Your task to perform on an android device: How much does a 2 bedroom apartment rent for in Seattle? Image 0: 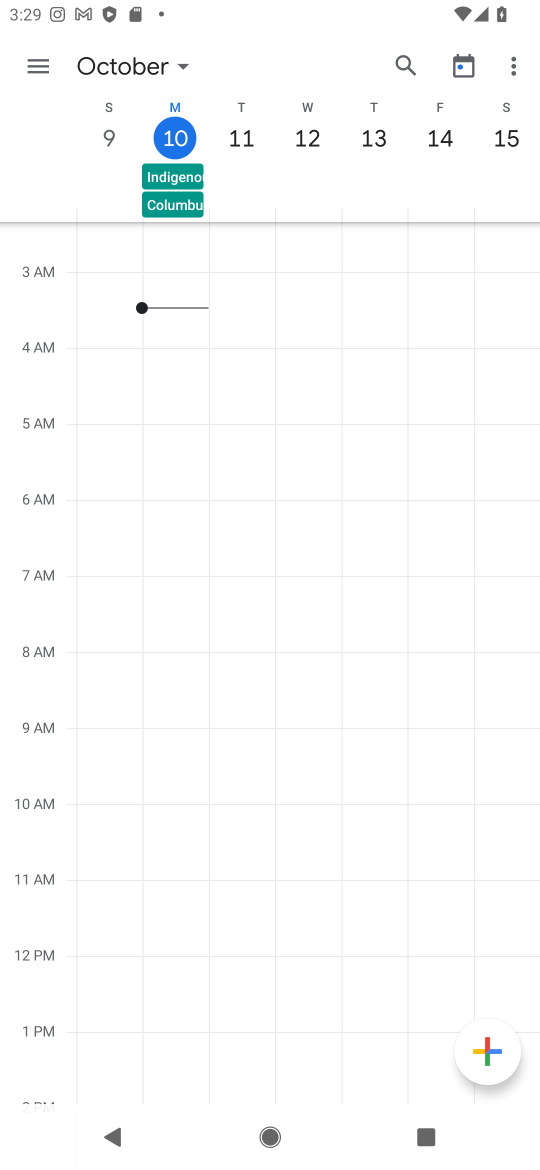
Step 0: press home button
Your task to perform on an android device: How much does a 2 bedroom apartment rent for in Seattle? Image 1: 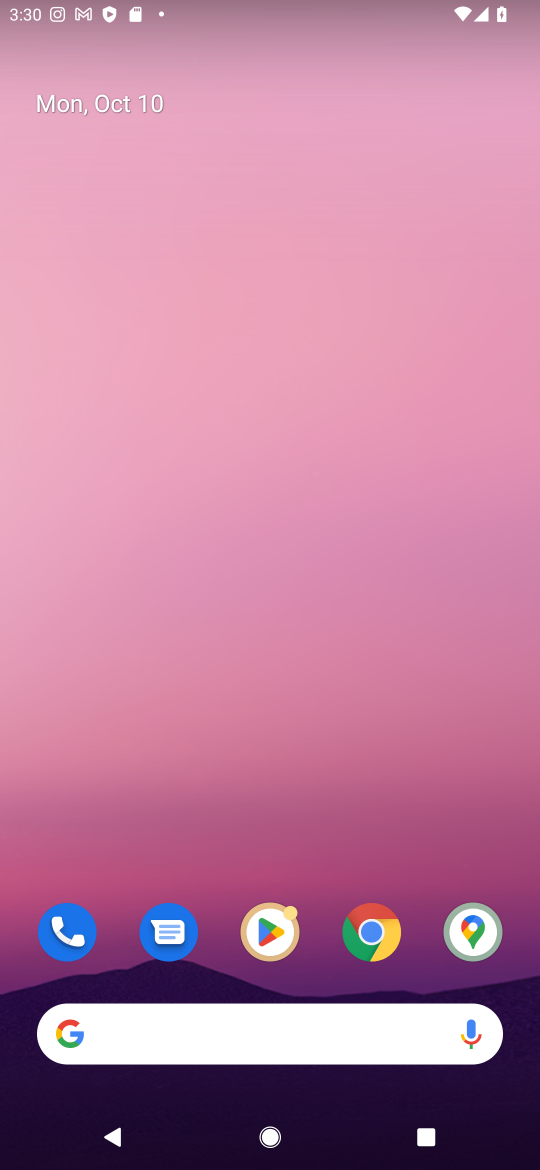
Step 1: click (295, 1034)
Your task to perform on an android device: How much does a 2 bedroom apartment rent for in Seattle? Image 2: 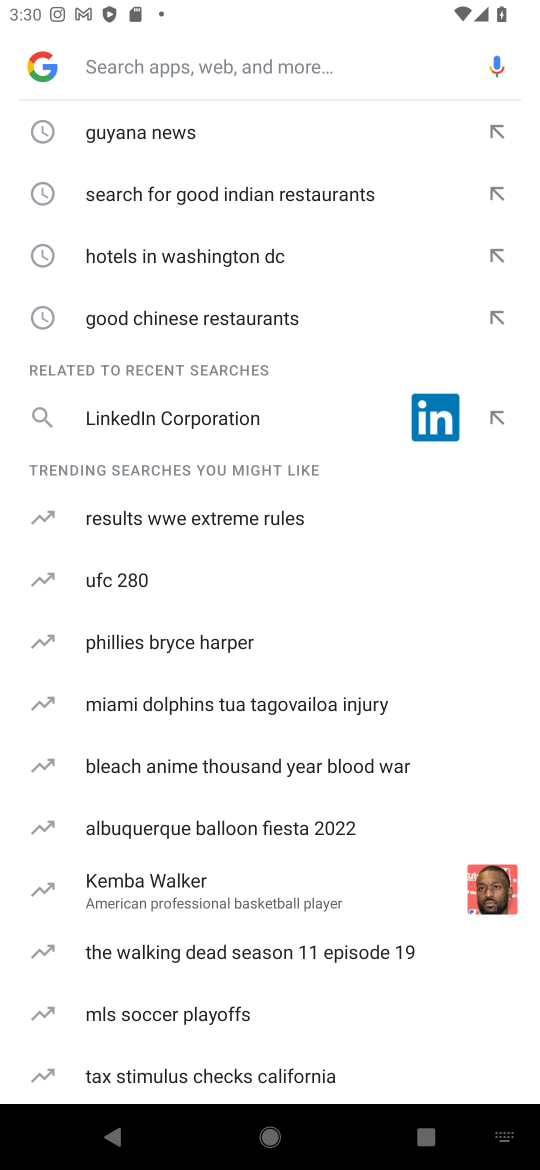
Step 2: type "2 bedroom apartment rent for in Seattle"
Your task to perform on an android device: How much does a 2 bedroom apartment rent for in Seattle? Image 3: 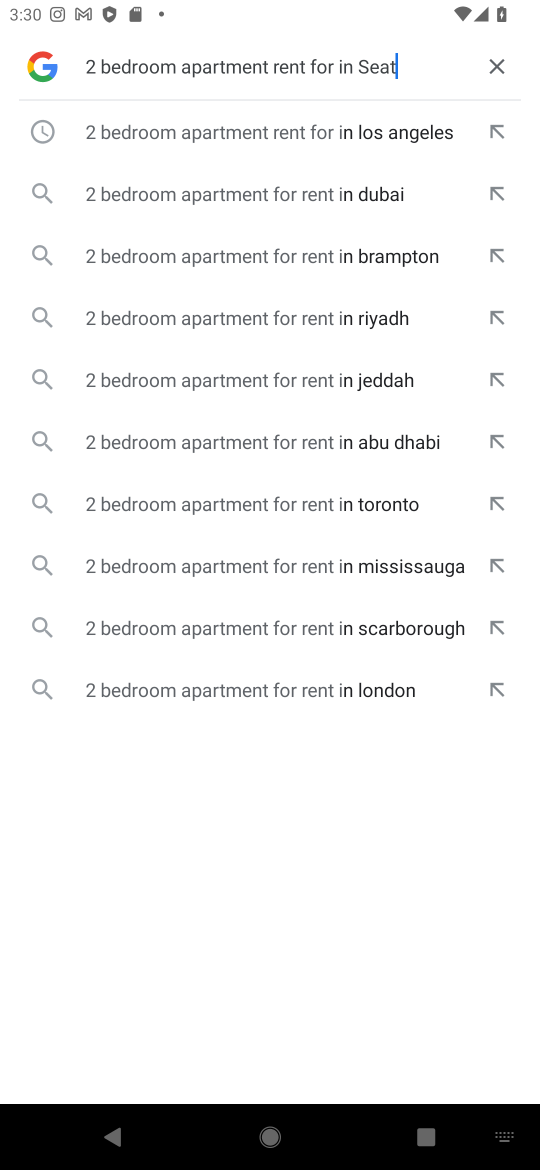
Step 3: press enter
Your task to perform on an android device: How much does a 2 bedroom apartment rent for in Seattle? Image 4: 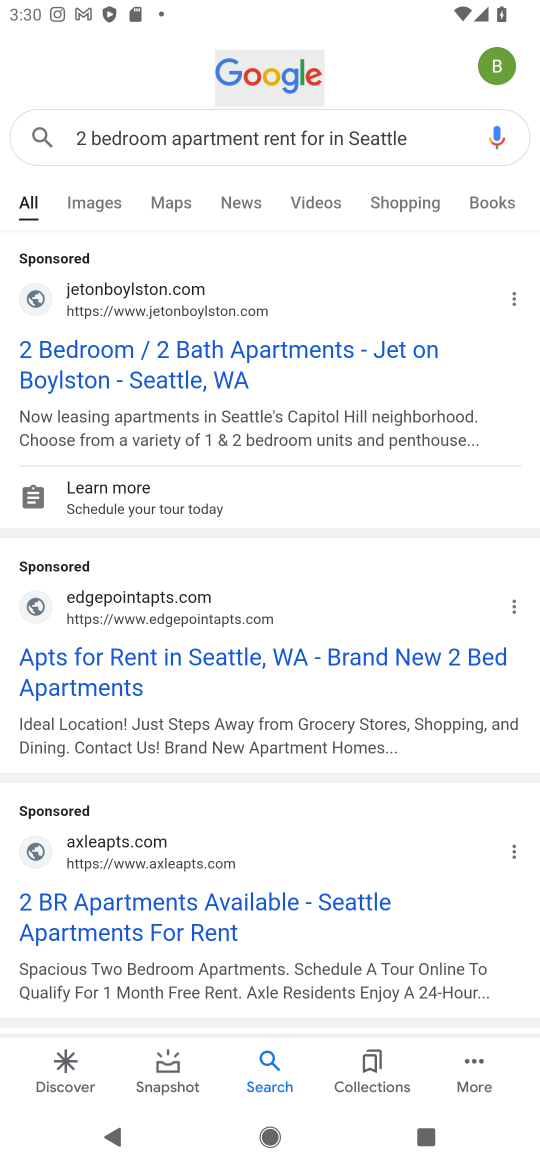
Step 4: click (222, 359)
Your task to perform on an android device: How much does a 2 bedroom apartment rent for in Seattle? Image 5: 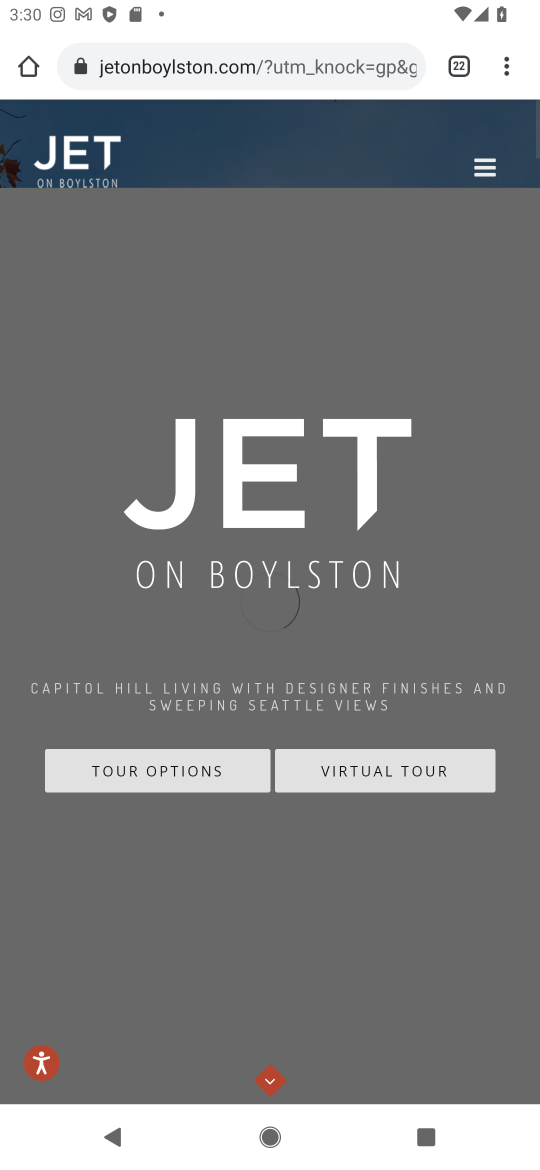
Step 5: task complete